Your task to perform on an android device: toggle sleep mode Image 0: 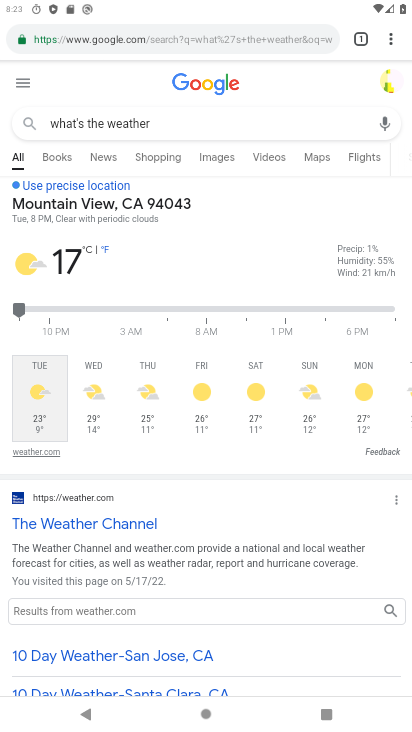
Step 0: press home button
Your task to perform on an android device: toggle sleep mode Image 1: 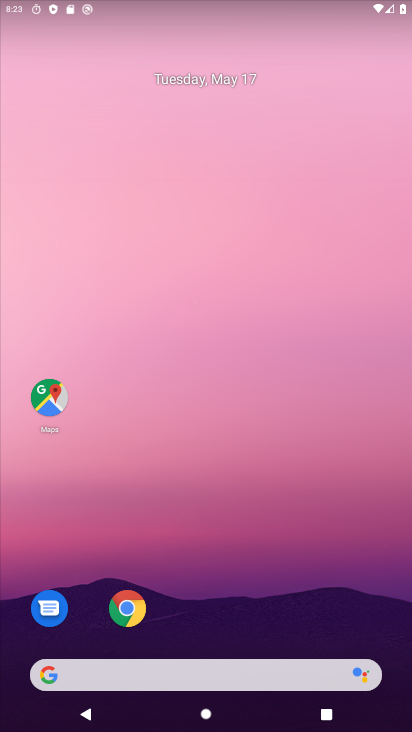
Step 1: drag from (358, 590) to (355, 107)
Your task to perform on an android device: toggle sleep mode Image 2: 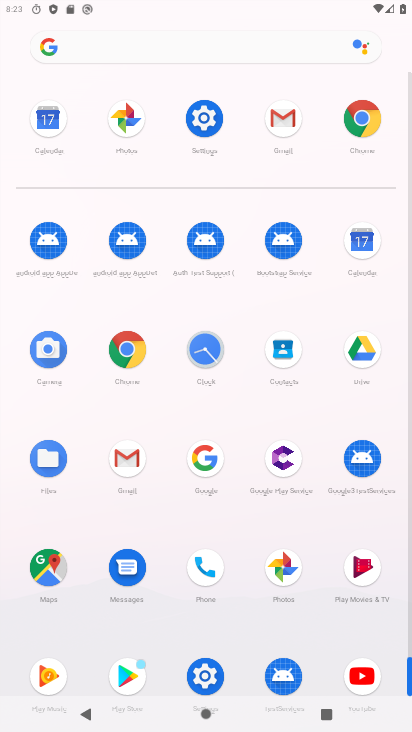
Step 2: click (217, 142)
Your task to perform on an android device: toggle sleep mode Image 3: 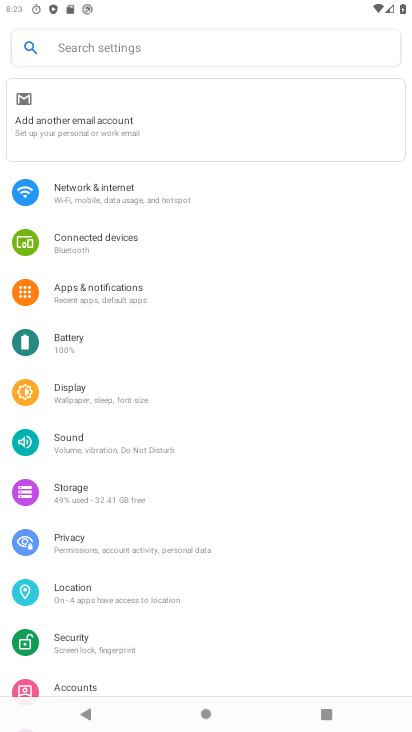
Step 3: click (139, 51)
Your task to perform on an android device: toggle sleep mode Image 4: 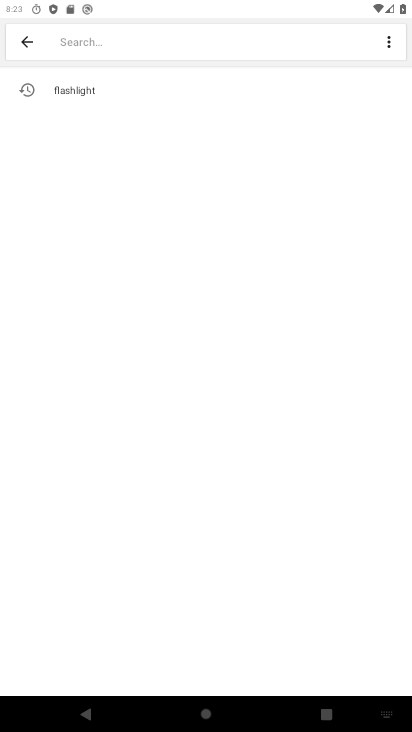
Step 4: type "sleep mode"
Your task to perform on an android device: toggle sleep mode Image 5: 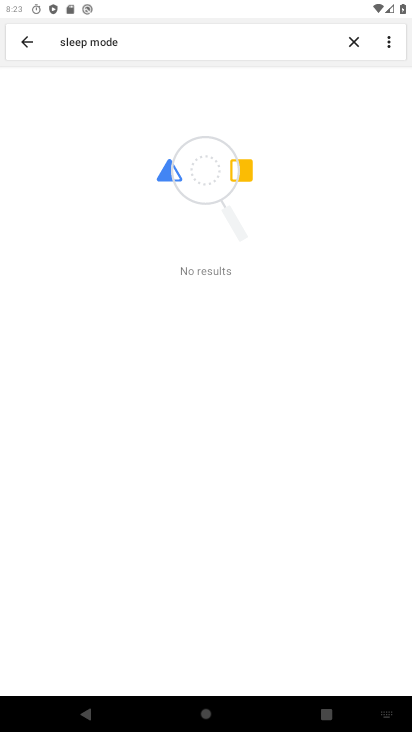
Step 5: task complete